Your task to perform on an android device: View the shopping cart on target.com. Image 0: 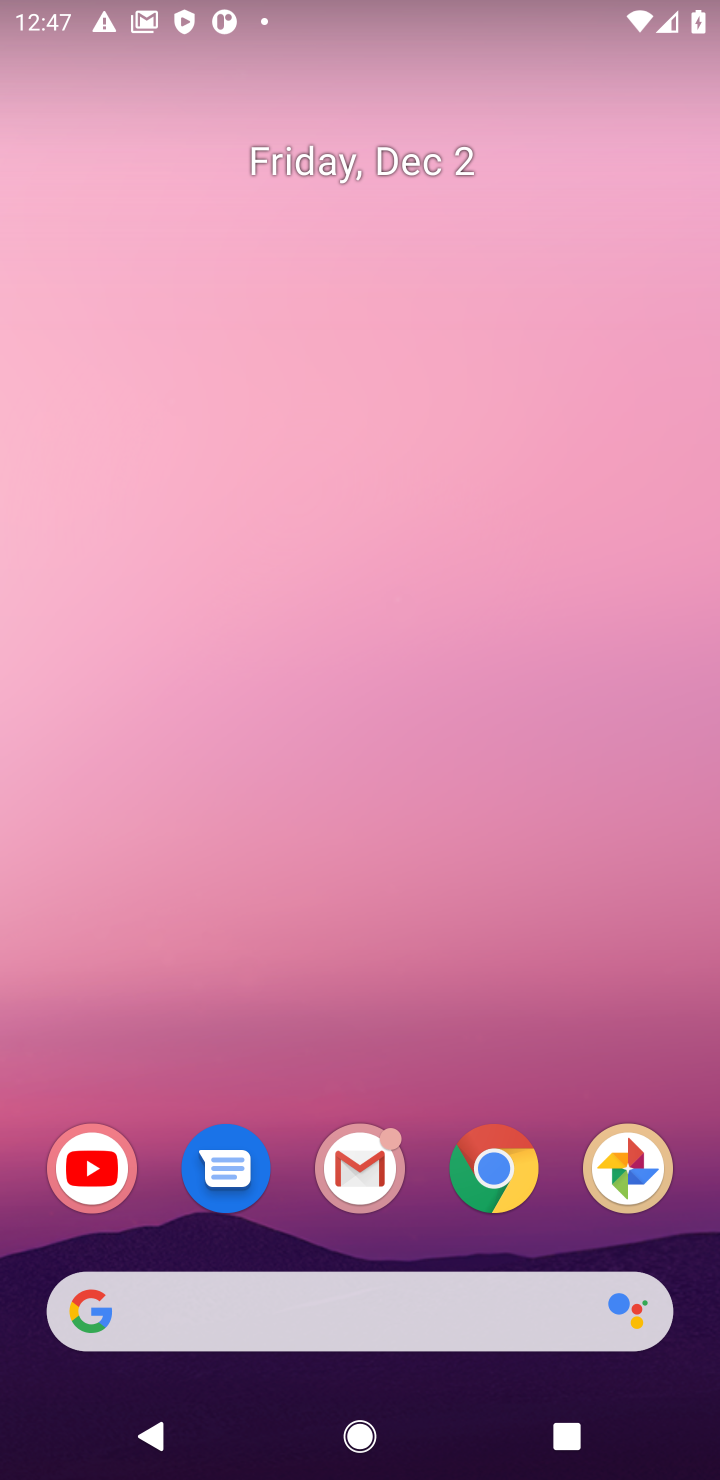
Step 0: click (479, 1168)
Your task to perform on an android device: View the shopping cart on target.com. Image 1: 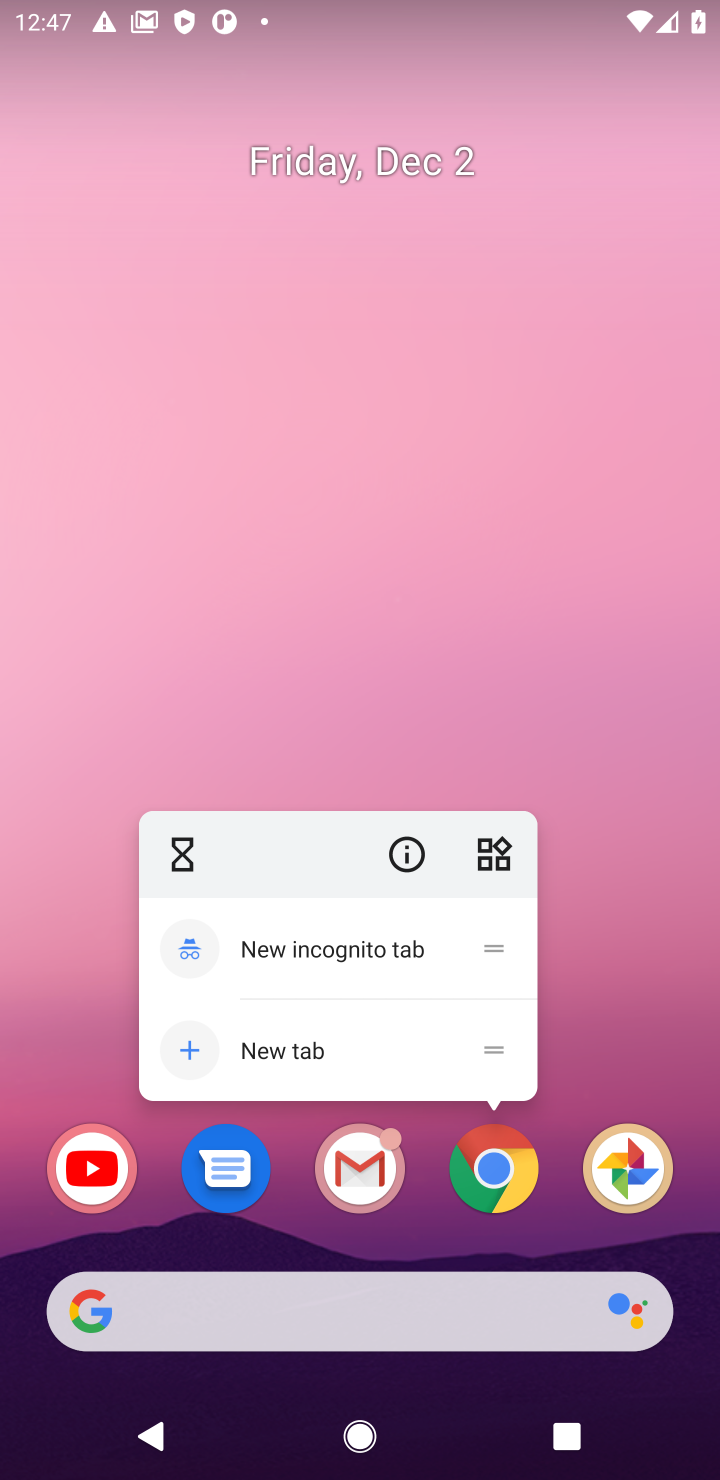
Step 1: click (504, 1181)
Your task to perform on an android device: View the shopping cart on target.com. Image 2: 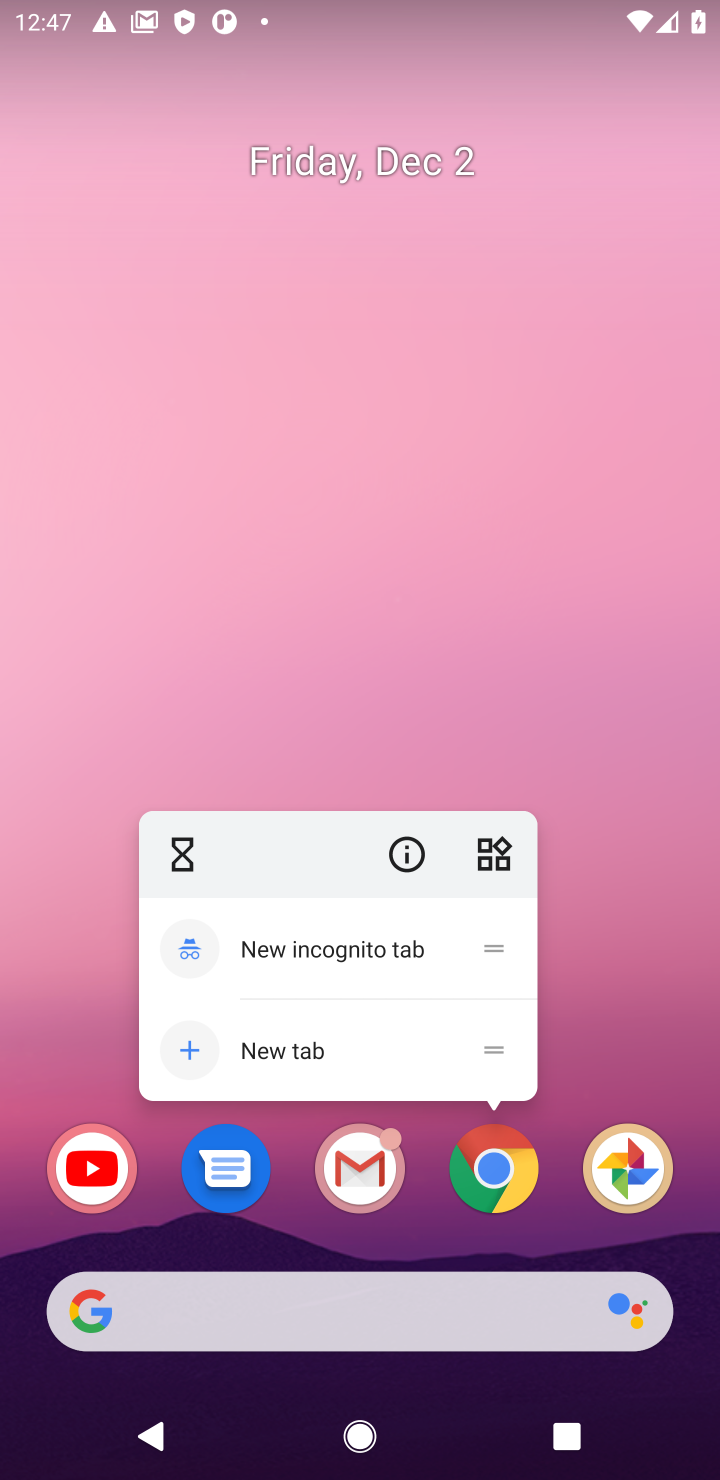
Step 2: click (506, 1181)
Your task to perform on an android device: View the shopping cart on target.com. Image 3: 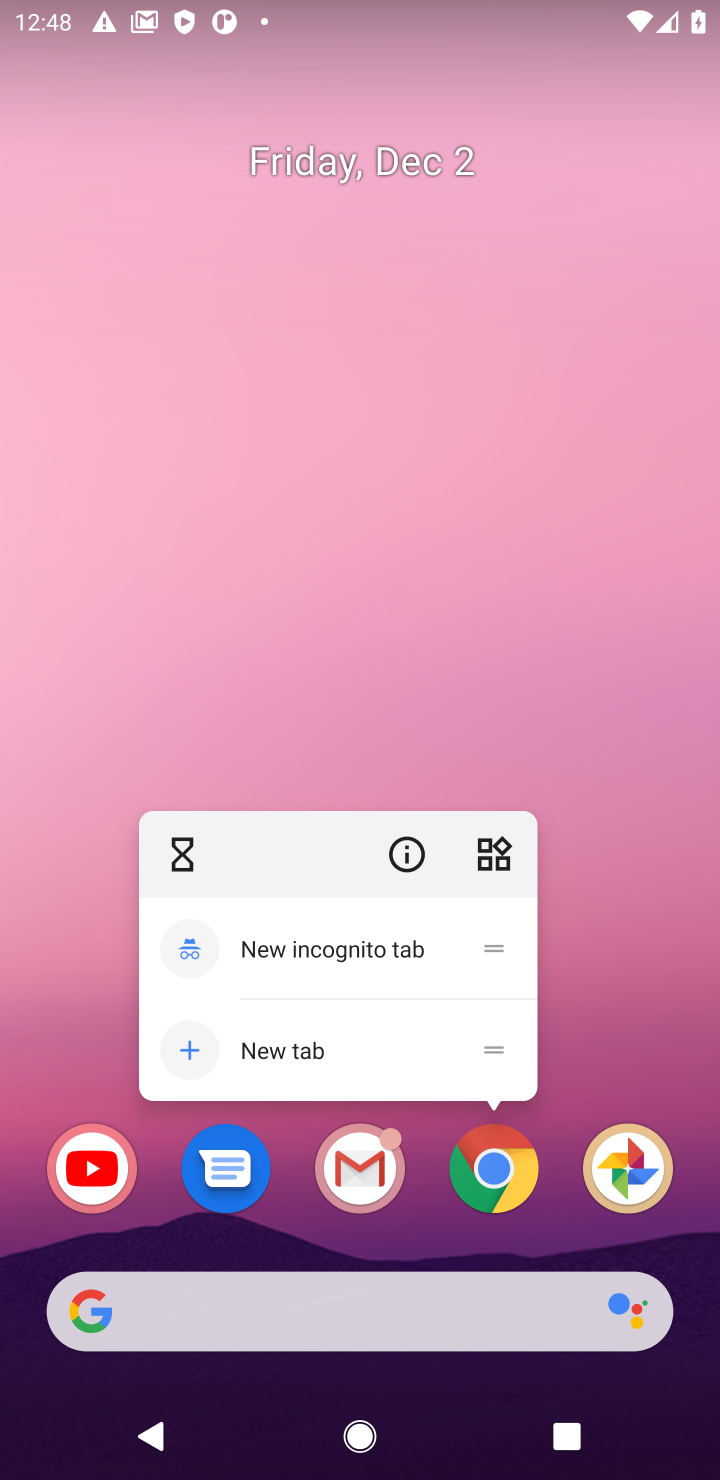
Step 3: click (506, 1181)
Your task to perform on an android device: View the shopping cart on target.com. Image 4: 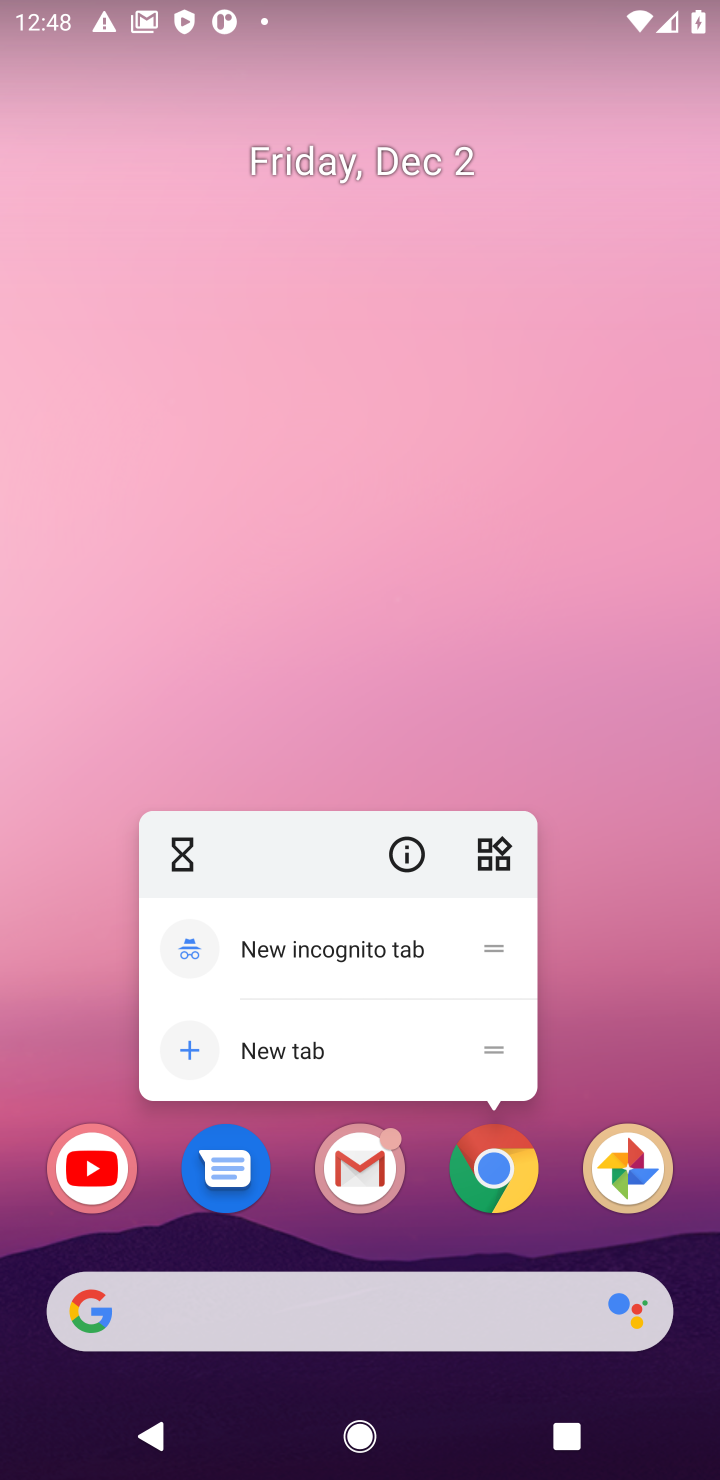
Step 4: click (706, 794)
Your task to perform on an android device: View the shopping cart on target.com. Image 5: 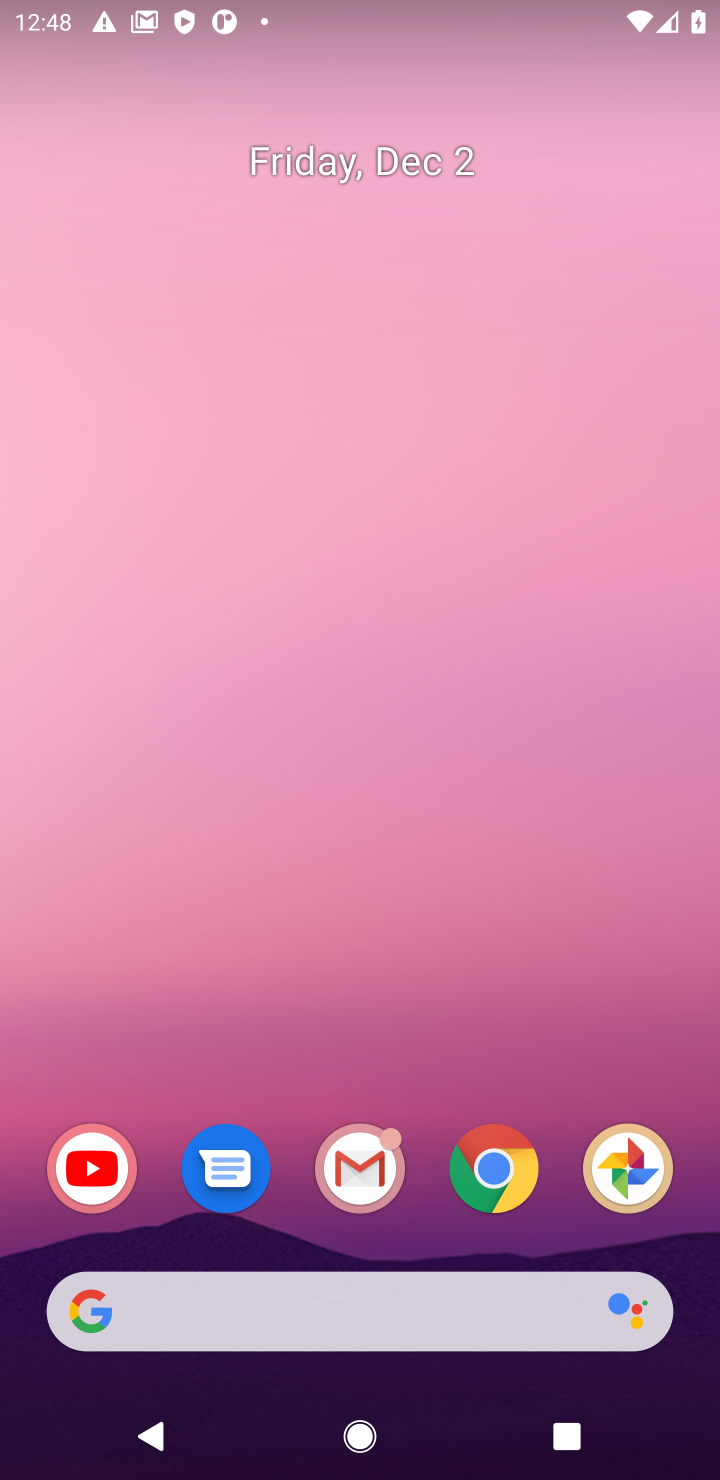
Step 5: click (501, 1169)
Your task to perform on an android device: View the shopping cart on target.com. Image 6: 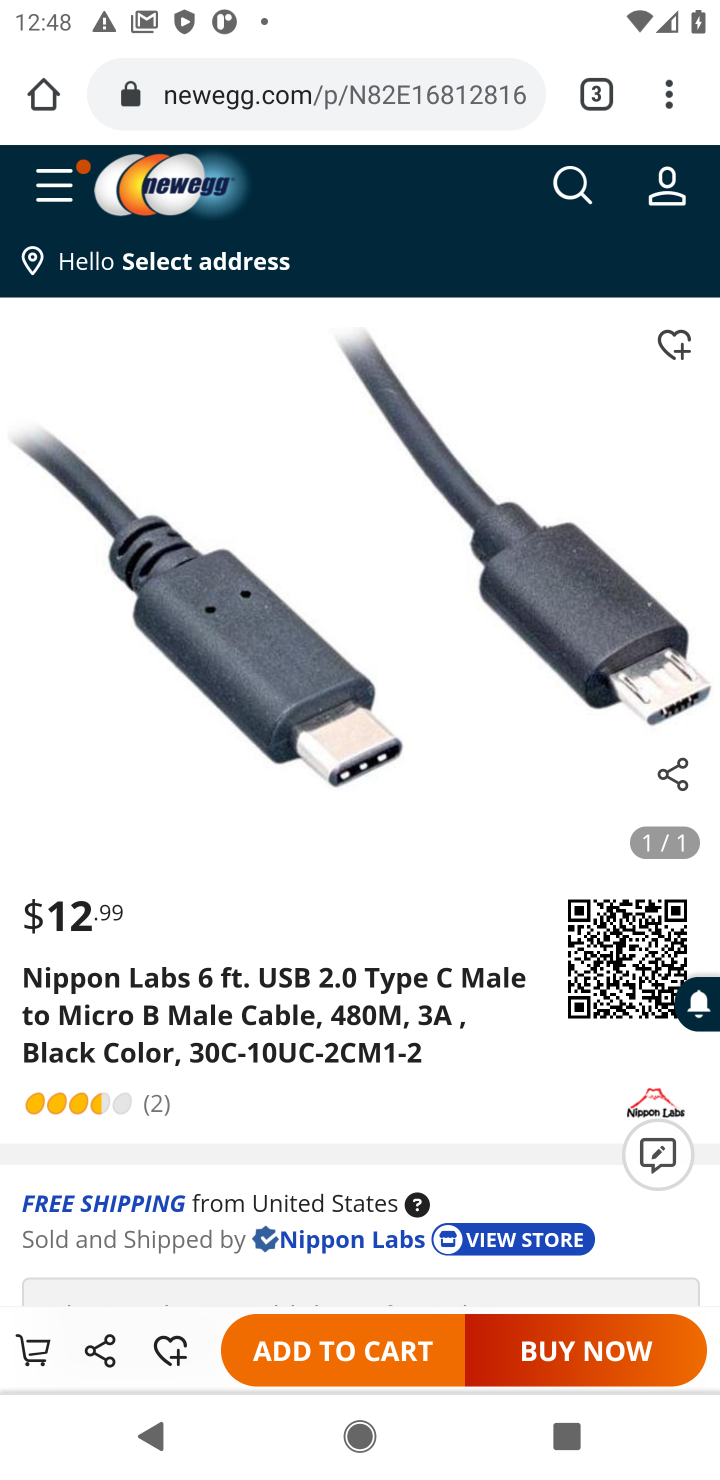
Step 6: click (298, 101)
Your task to perform on an android device: View the shopping cart on target.com. Image 7: 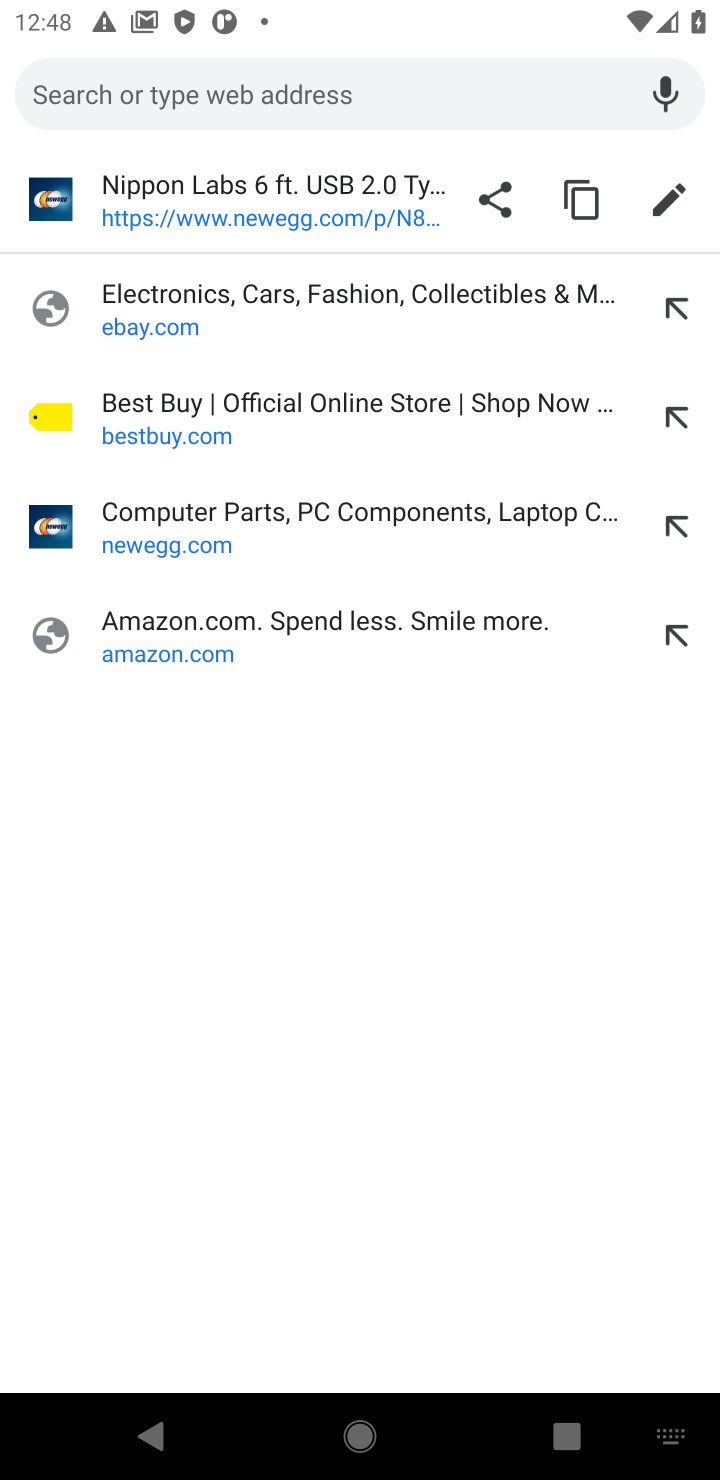
Step 7: type "target.com"
Your task to perform on an android device: View the shopping cart on target.com. Image 8: 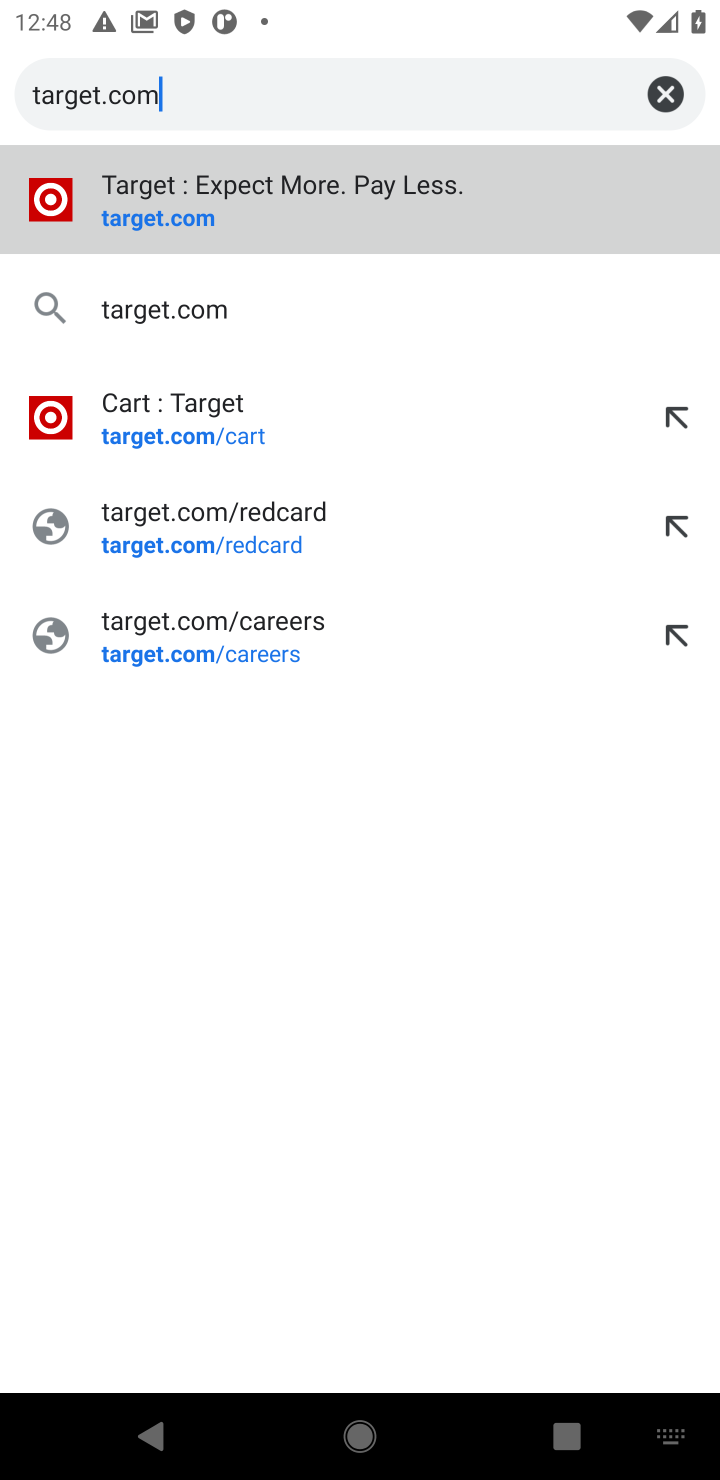
Step 8: click (138, 219)
Your task to perform on an android device: View the shopping cart on target.com. Image 9: 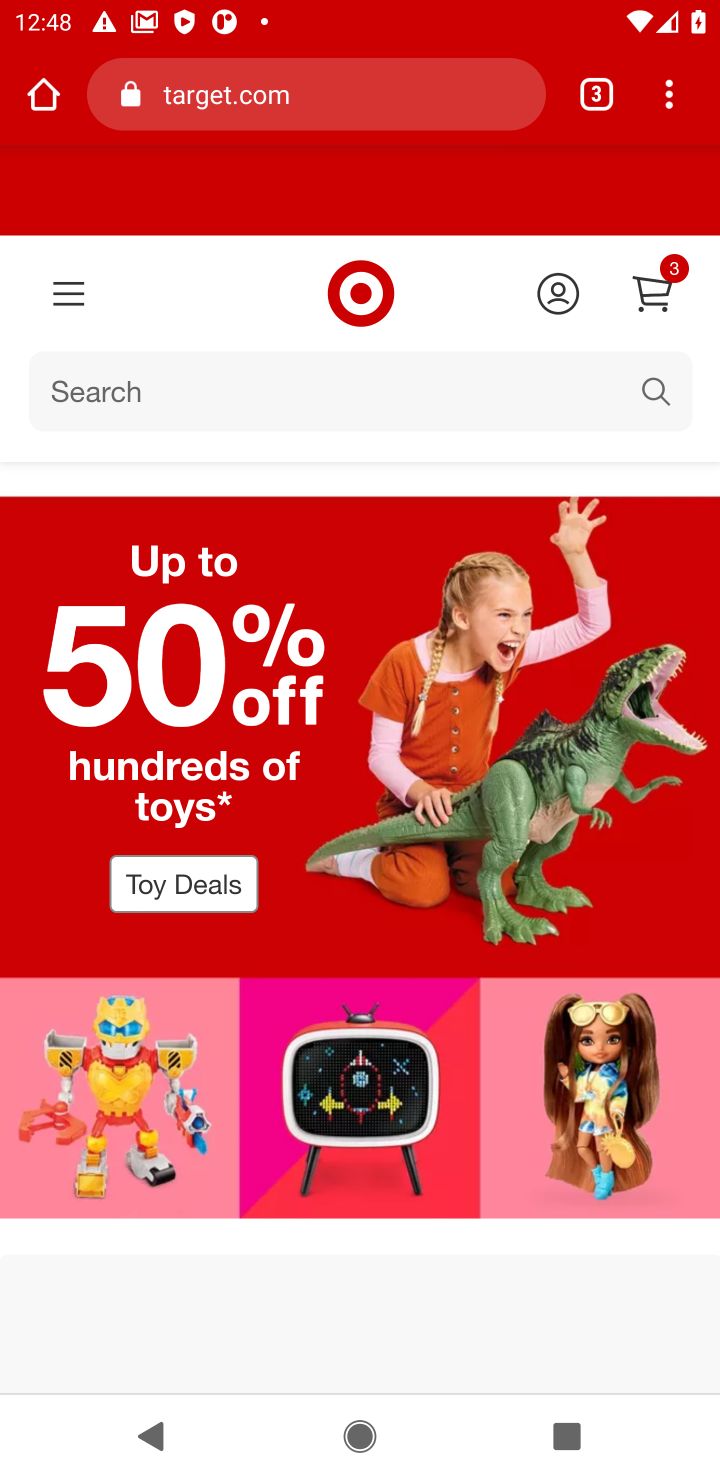
Step 9: click (652, 297)
Your task to perform on an android device: View the shopping cart on target.com. Image 10: 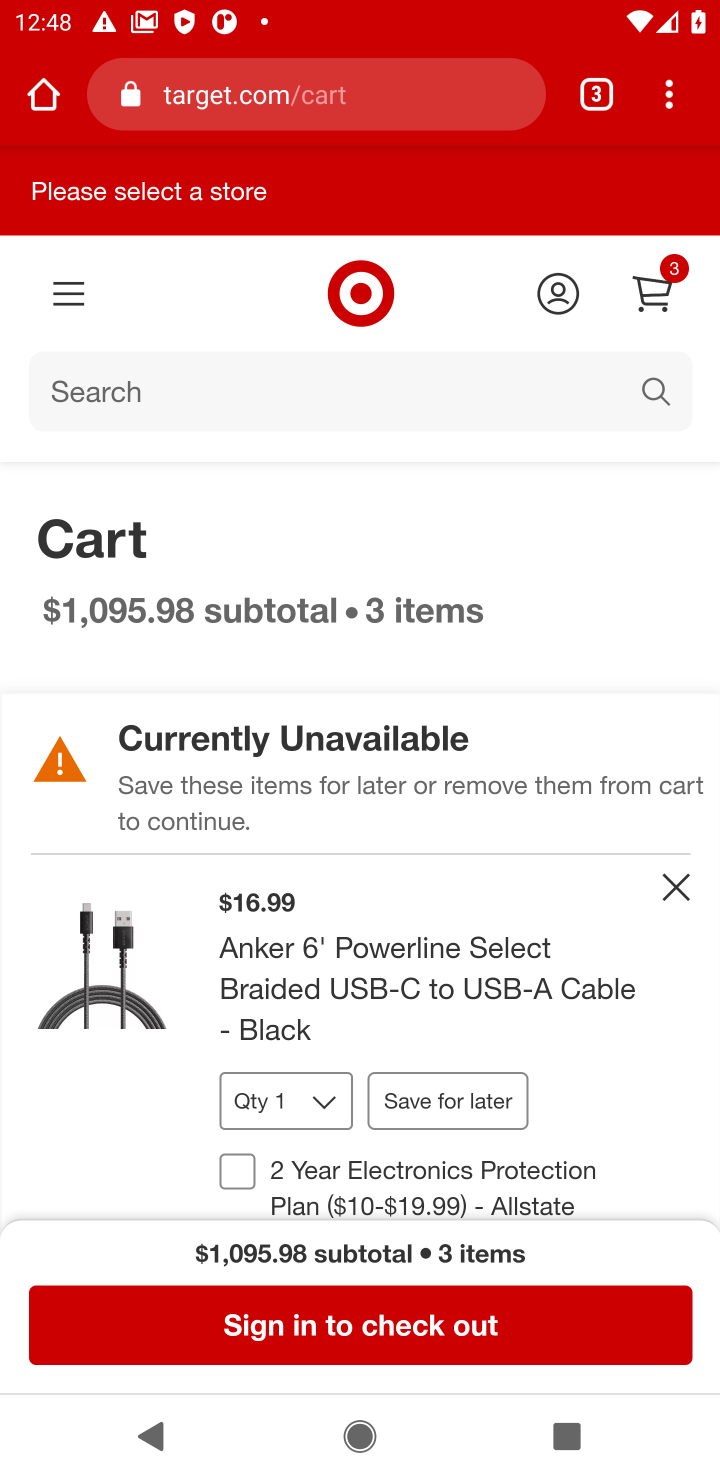
Step 10: task complete